Your task to perform on an android device: add a contact Image 0: 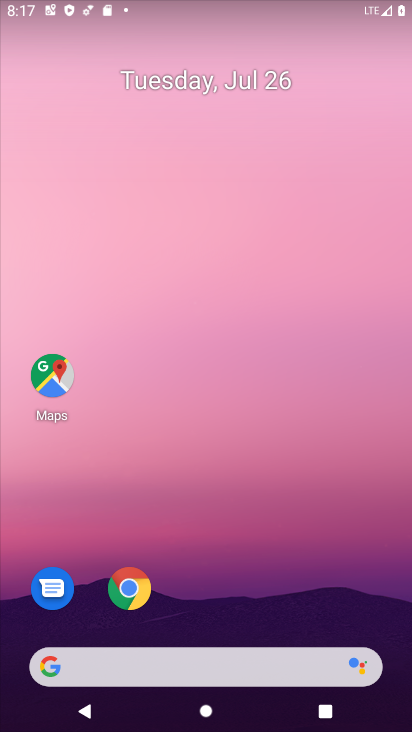
Step 0: drag from (345, 566) to (314, 89)
Your task to perform on an android device: add a contact Image 1: 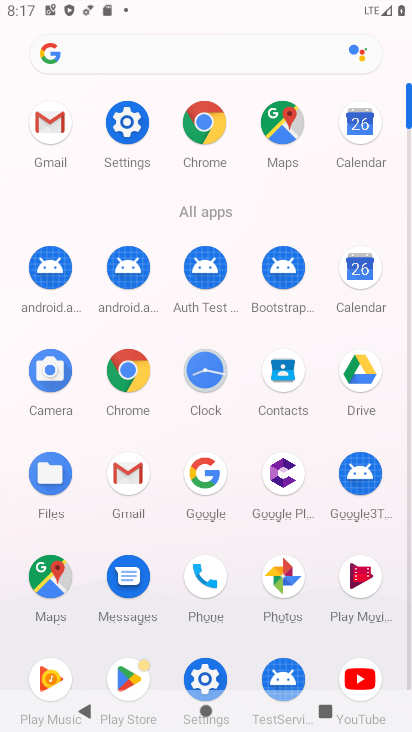
Step 1: click (286, 375)
Your task to perform on an android device: add a contact Image 2: 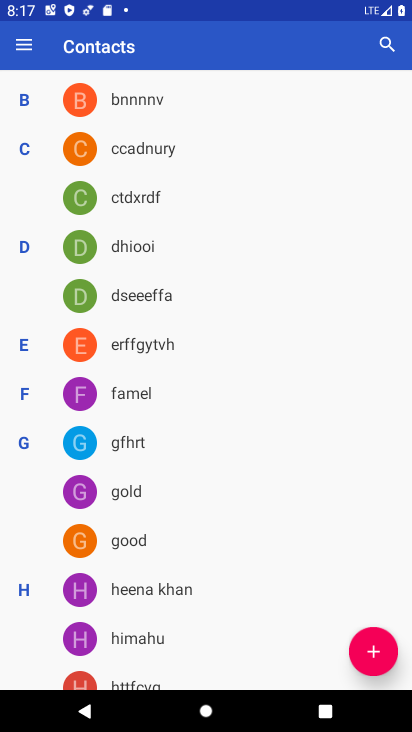
Step 2: click (364, 637)
Your task to perform on an android device: add a contact Image 3: 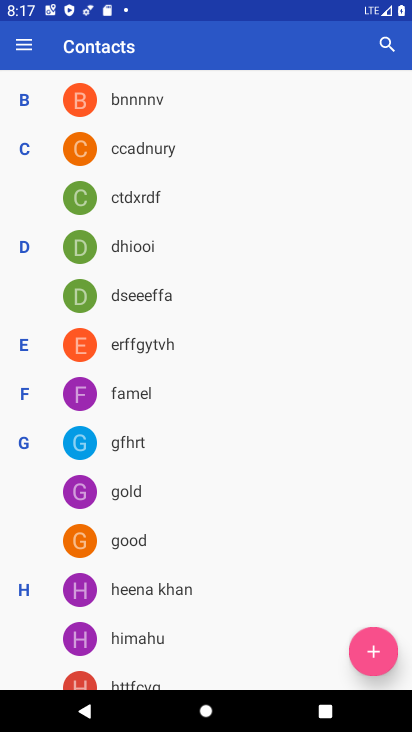
Step 3: click (364, 637)
Your task to perform on an android device: add a contact Image 4: 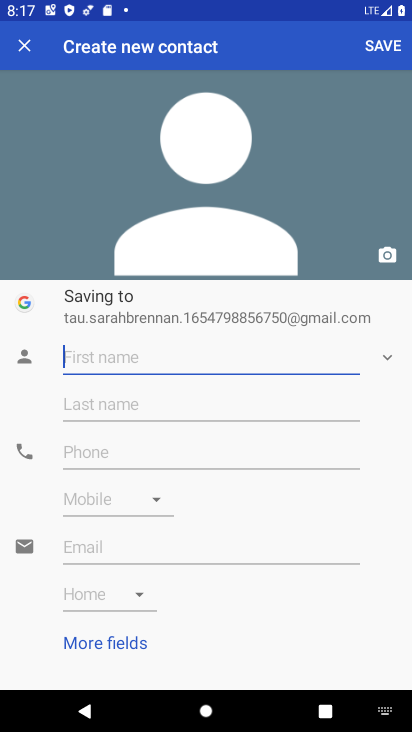
Step 4: type "mk"
Your task to perform on an android device: add a contact Image 5: 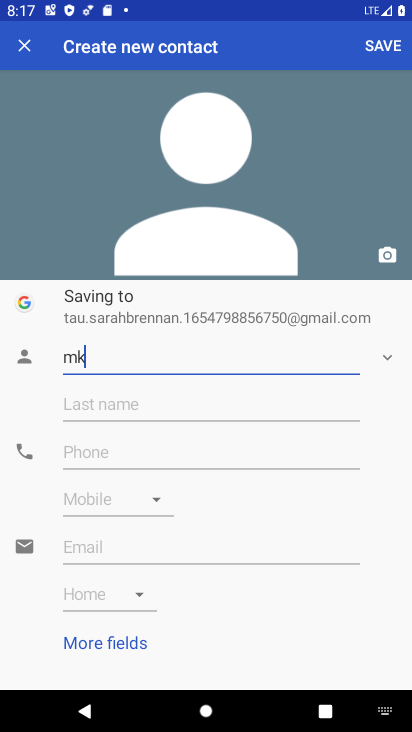
Step 5: click (140, 440)
Your task to perform on an android device: add a contact Image 6: 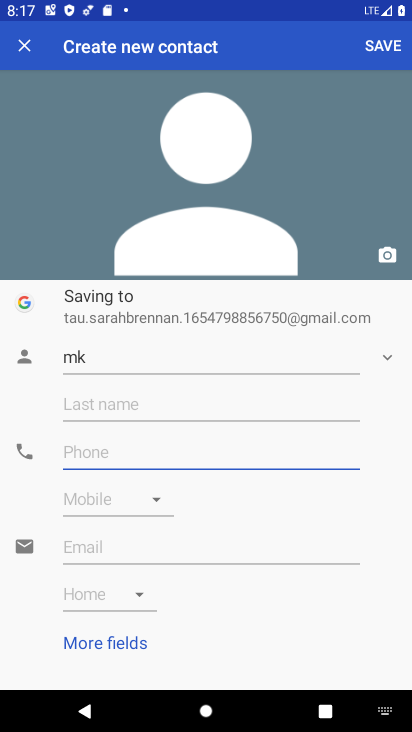
Step 6: type "890987890"
Your task to perform on an android device: add a contact Image 7: 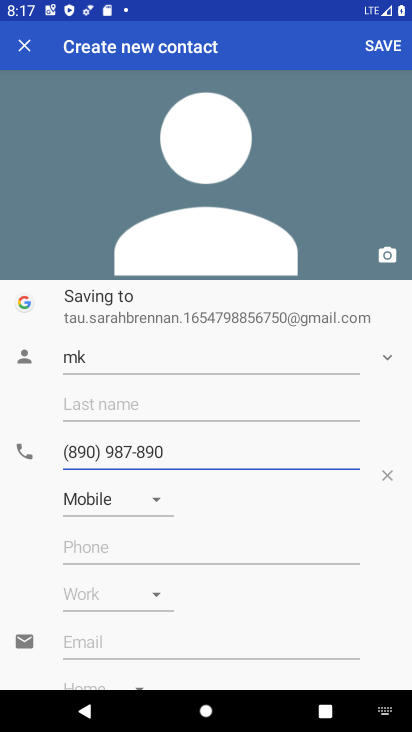
Step 7: click (370, 59)
Your task to perform on an android device: add a contact Image 8: 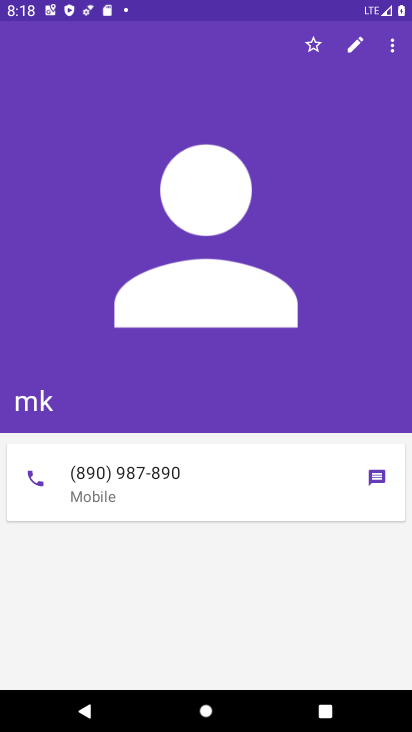
Step 8: task complete